Your task to perform on an android device: open a new tab in the chrome app Image 0: 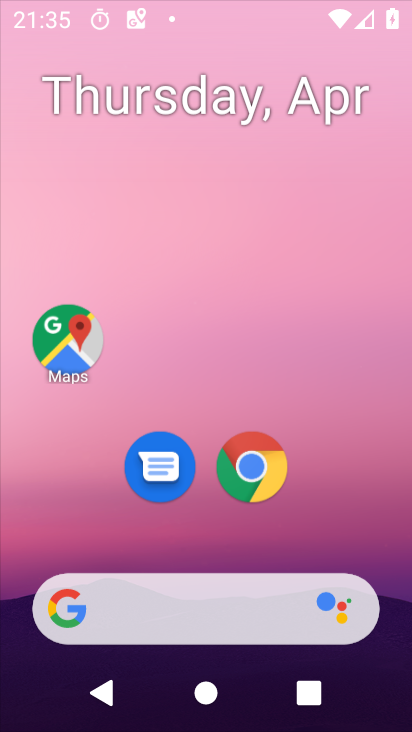
Step 0: drag from (200, 512) to (259, 2)
Your task to perform on an android device: open a new tab in the chrome app Image 1: 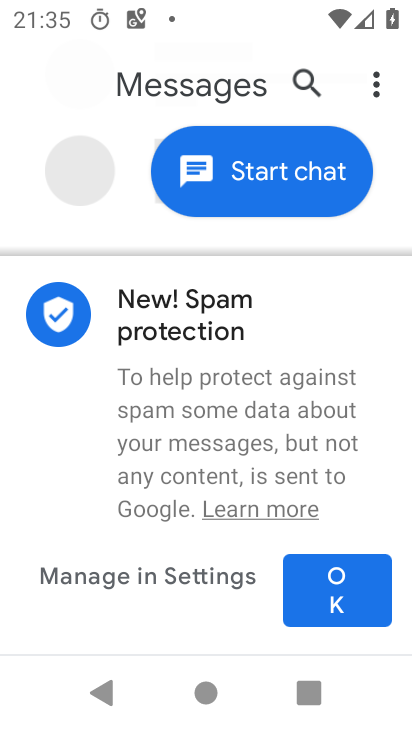
Step 1: press home button
Your task to perform on an android device: open a new tab in the chrome app Image 2: 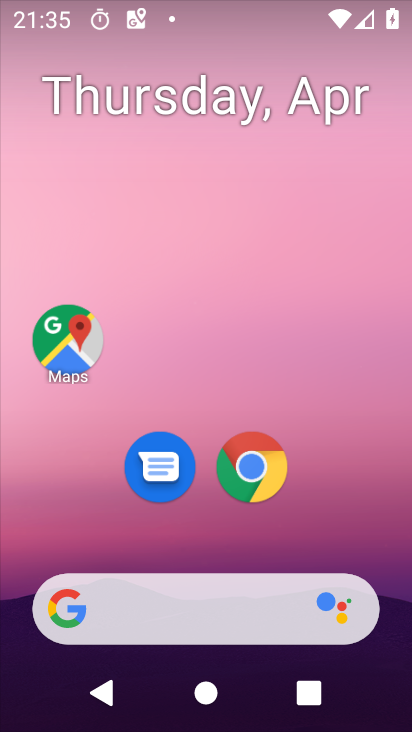
Step 2: drag from (227, 556) to (194, 27)
Your task to perform on an android device: open a new tab in the chrome app Image 3: 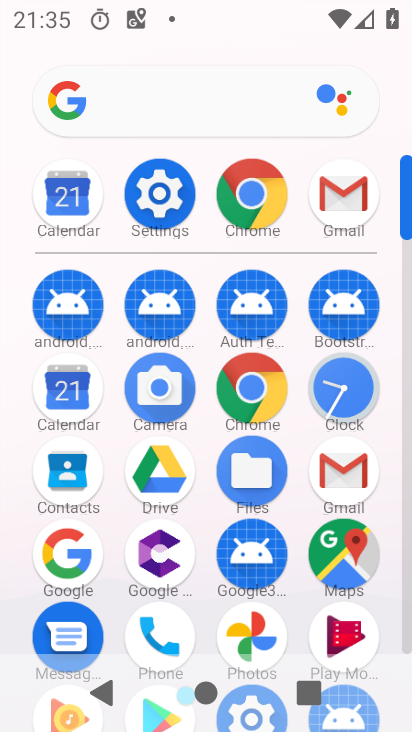
Step 3: click (253, 396)
Your task to perform on an android device: open a new tab in the chrome app Image 4: 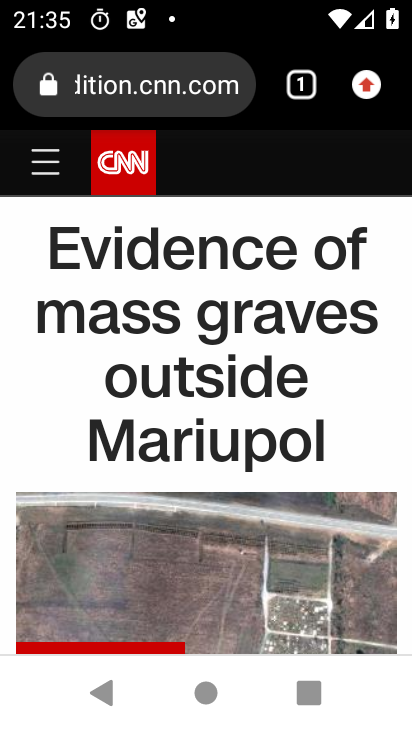
Step 4: click (298, 80)
Your task to perform on an android device: open a new tab in the chrome app Image 5: 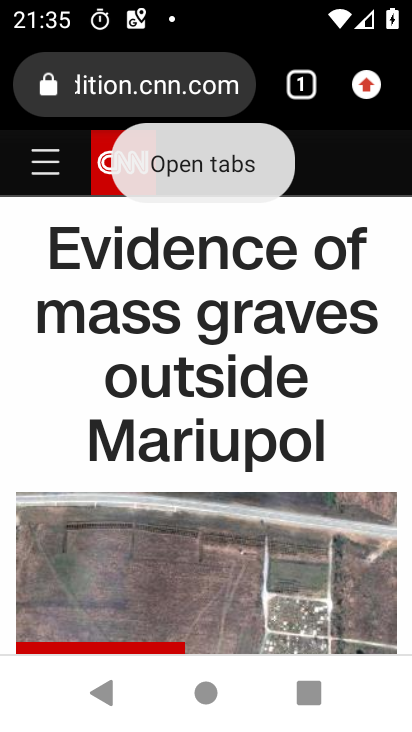
Step 5: click (309, 87)
Your task to perform on an android device: open a new tab in the chrome app Image 6: 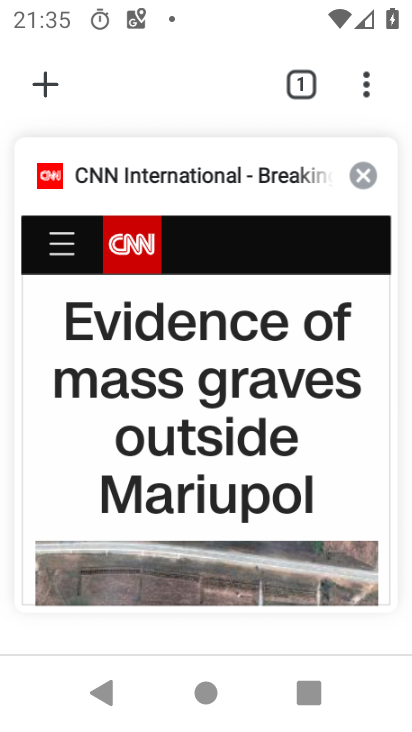
Step 6: drag from (188, 438) to (175, 30)
Your task to perform on an android device: open a new tab in the chrome app Image 7: 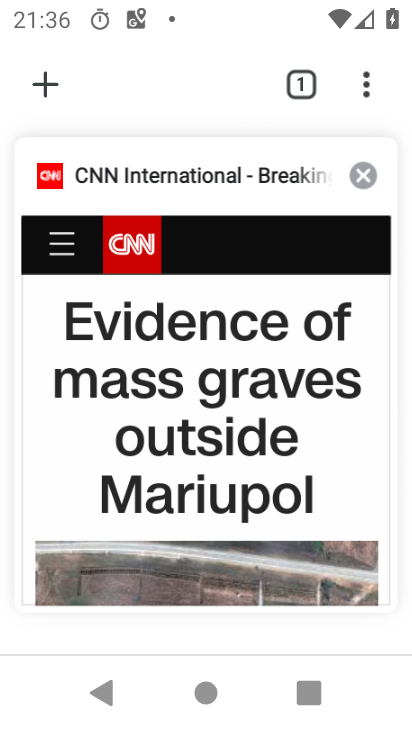
Step 7: drag from (176, 460) to (161, 226)
Your task to perform on an android device: open a new tab in the chrome app Image 8: 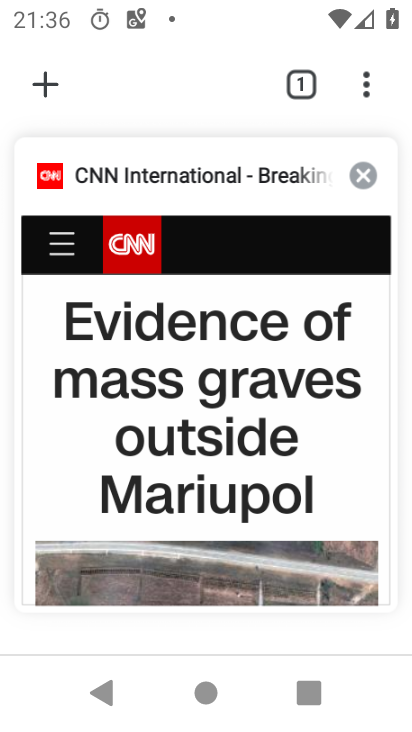
Step 8: click (48, 76)
Your task to perform on an android device: open a new tab in the chrome app Image 9: 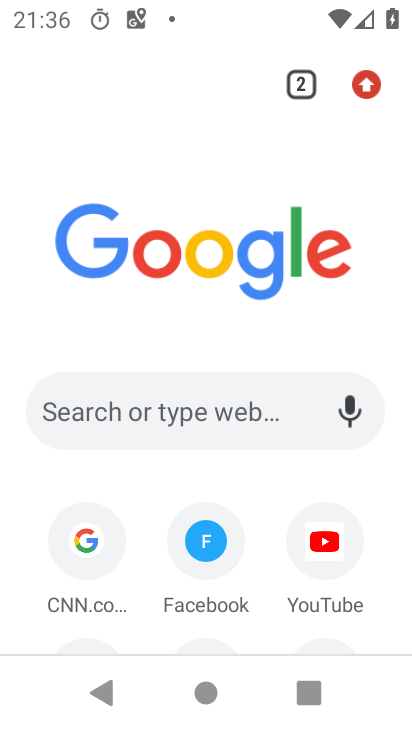
Step 9: task complete